Your task to perform on an android device: turn off picture-in-picture Image 0: 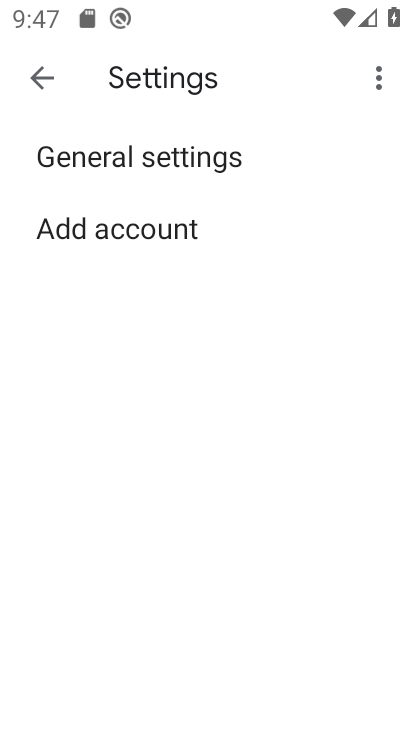
Step 0: press home button
Your task to perform on an android device: turn off picture-in-picture Image 1: 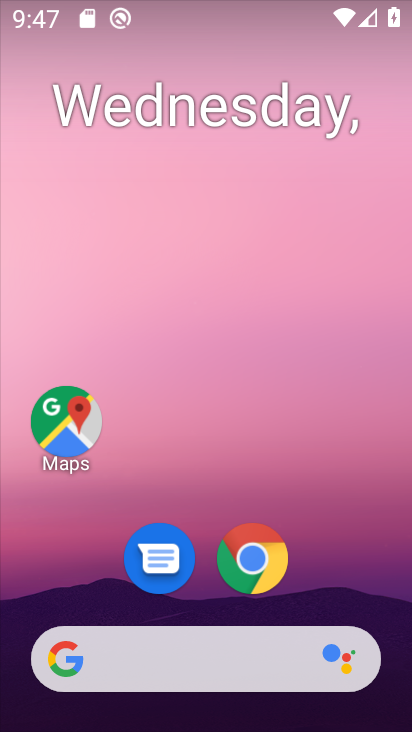
Step 1: drag from (342, 558) to (353, 155)
Your task to perform on an android device: turn off picture-in-picture Image 2: 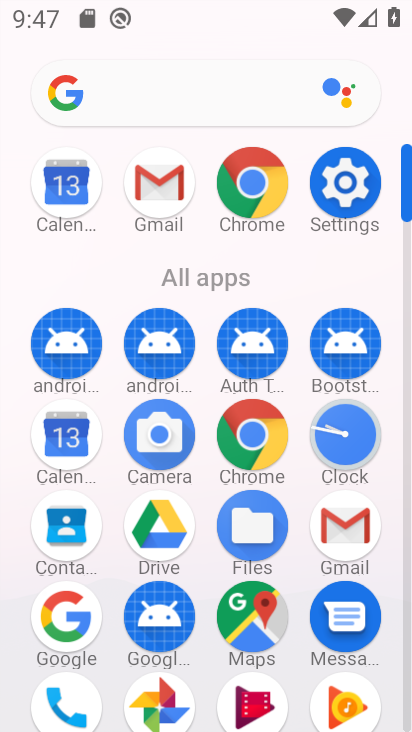
Step 2: click (348, 195)
Your task to perform on an android device: turn off picture-in-picture Image 3: 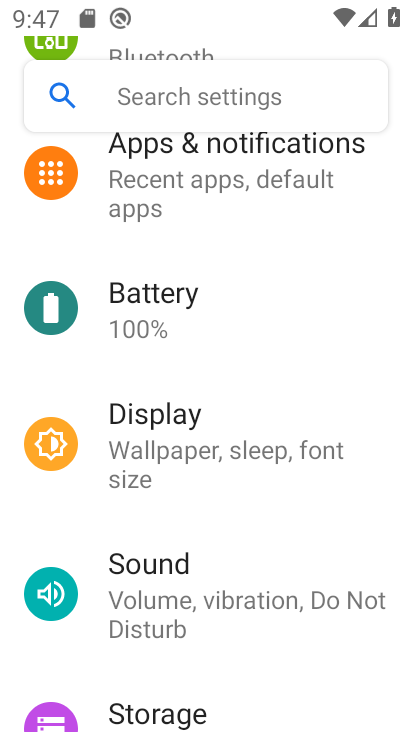
Step 3: drag from (359, 549) to (357, 449)
Your task to perform on an android device: turn off picture-in-picture Image 4: 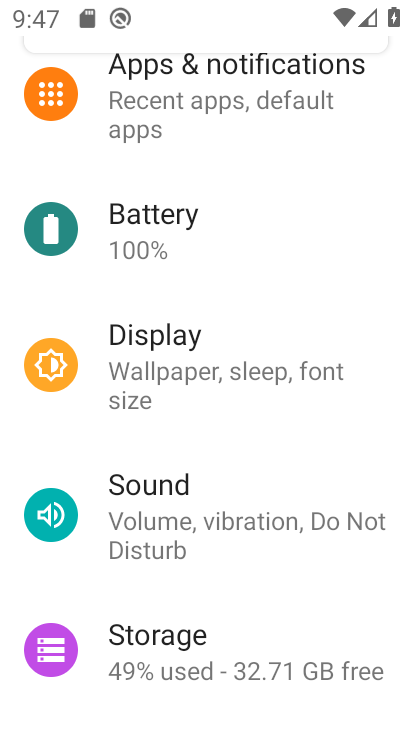
Step 4: drag from (365, 596) to (371, 482)
Your task to perform on an android device: turn off picture-in-picture Image 5: 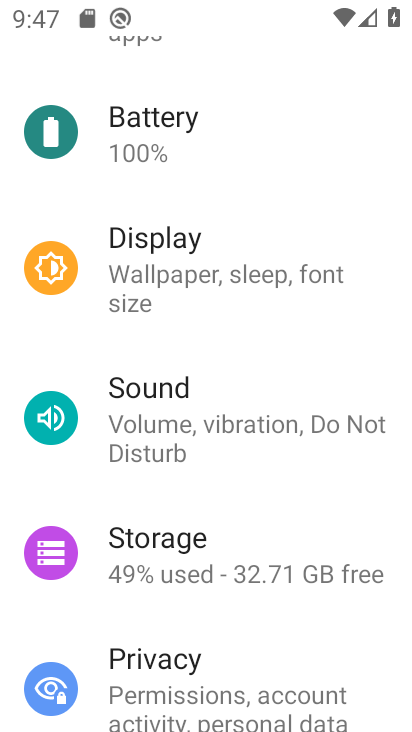
Step 5: drag from (385, 627) to (385, 476)
Your task to perform on an android device: turn off picture-in-picture Image 6: 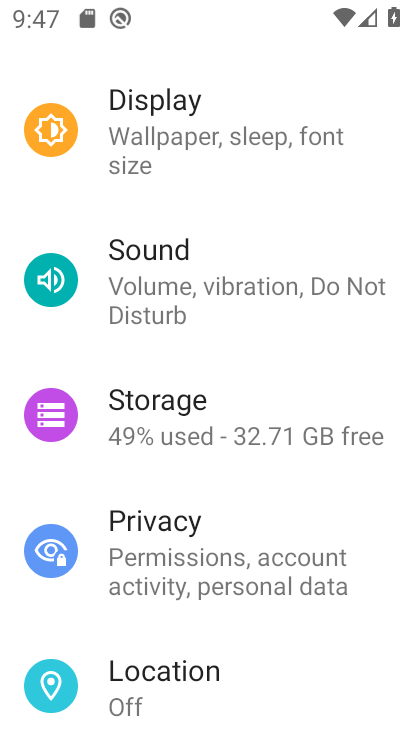
Step 6: drag from (366, 640) to (366, 535)
Your task to perform on an android device: turn off picture-in-picture Image 7: 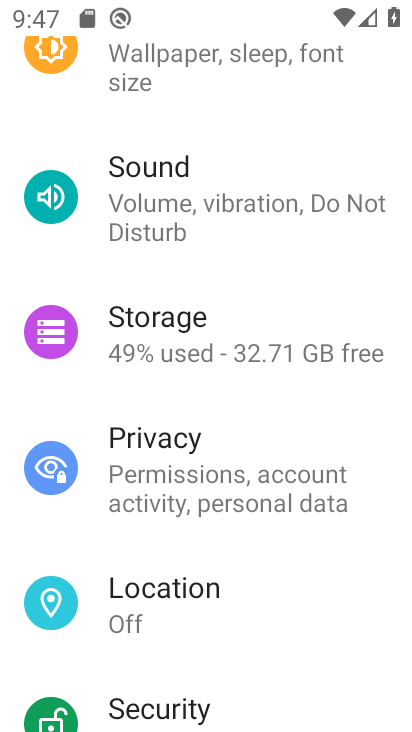
Step 7: drag from (300, 596) to (316, 514)
Your task to perform on an android device: turn off picture-in-picture Image 8: 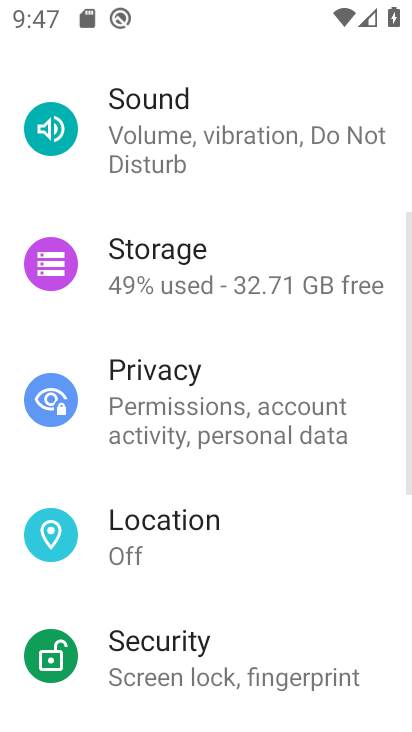
Step 8: drag from (312, 561) to (328, 459)
Your task to perform on an android device: turn off picture-in-picture Image 9: 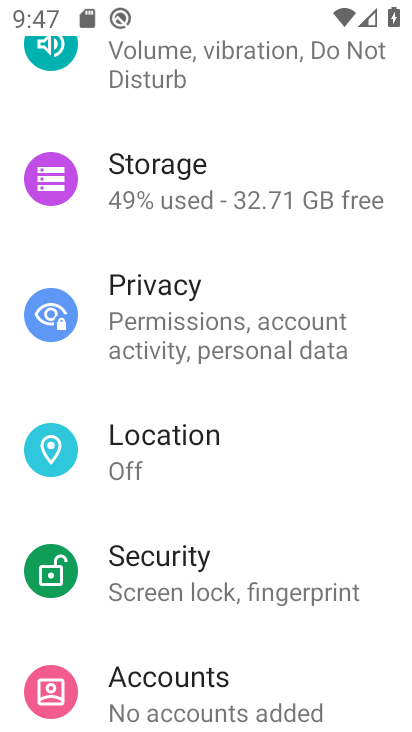
Step 9: drag from (306, 532) to (320, 432)
Your task to perform on an android device: turn off picture-in-picture Image 10: 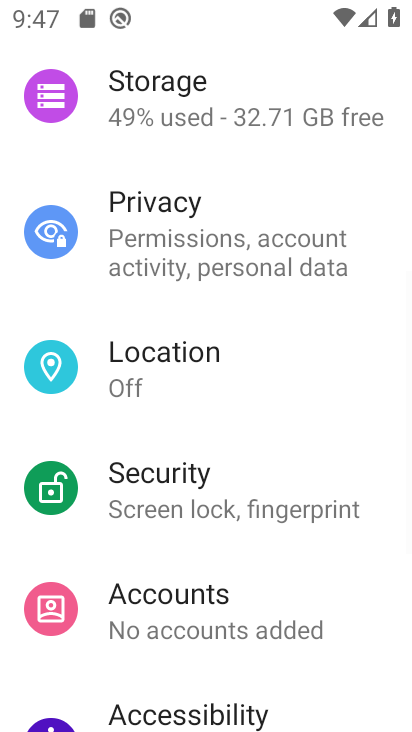
Step 10: drag from (322, 545) to (338, 442)
Your task to perform on an android device: turn off picture-in-picture Image 11: 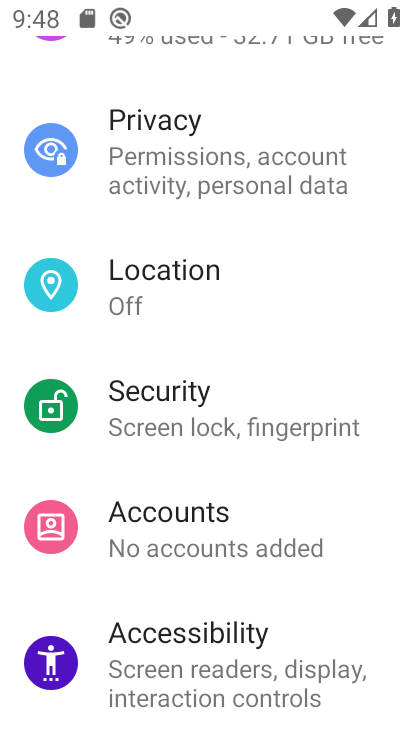
Step 11: drag from (333, 559) to (348, 394)
Your task to perform on an android device: turn off picture-in-picture Image 12: 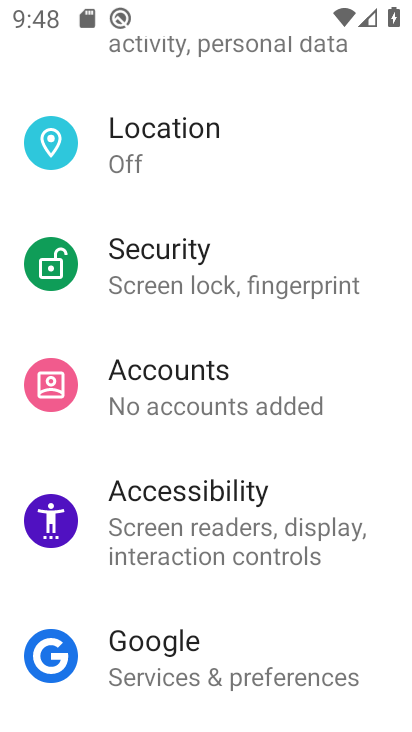
Step 12: drag from (346, 570) to (359, 397)
Your task to perform on an android device: turn off picture-in-picture Image 13: 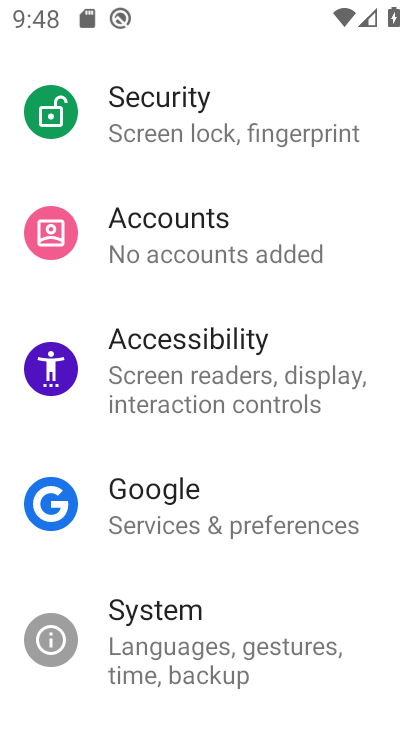
Step 13: drag from (355, 279) to (359, 411)
Your task to perform on an android device: turn off picture-in-picture Image 14: 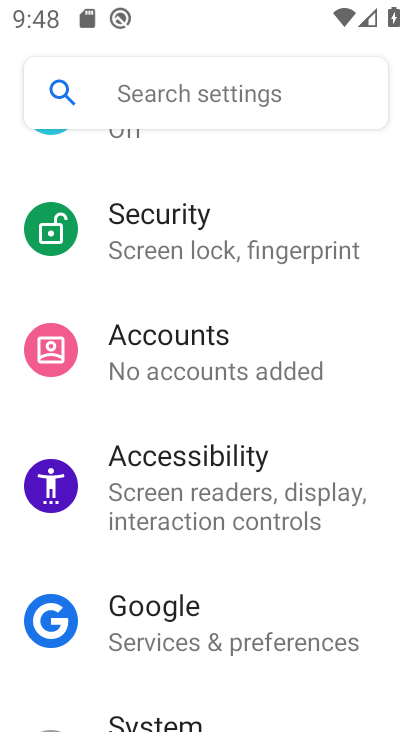
Step 14: drag from (357, 209) to (335, 391)
Your task to perform on an android device: turn off picture-in-picture Image 15: 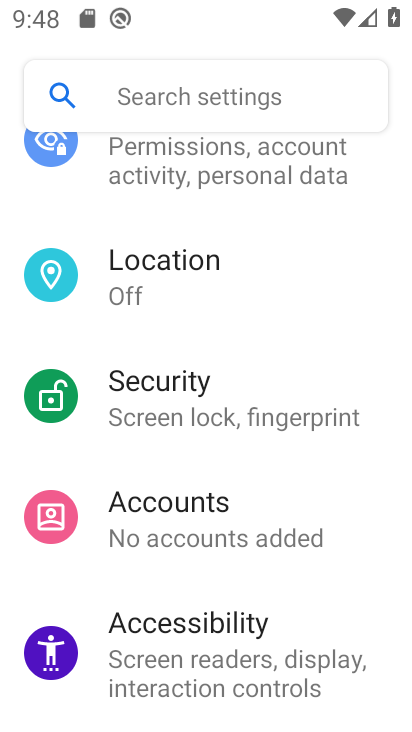
Step 15: drag from (334, 254) to (332, 358)
Your task to perform on an android device: turn off picture-in-picture Image 16: 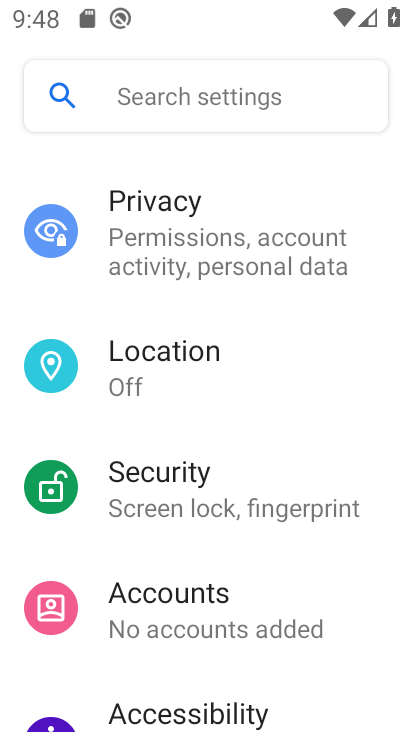
Step 16: drag from (327, 210) to (311, 365)
Your task to perform on an android device: turn off picture-in-picture Image 17: 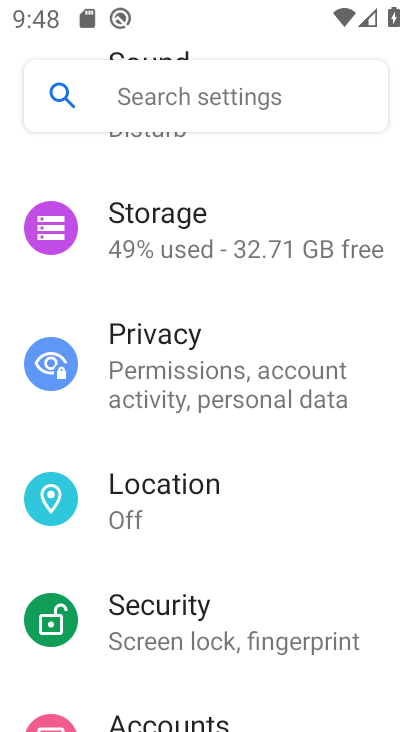
Step 17: drag from (327, 194) to (317, 345)
Your task to perform on an android device: turn off picture-in-picture Image 18: 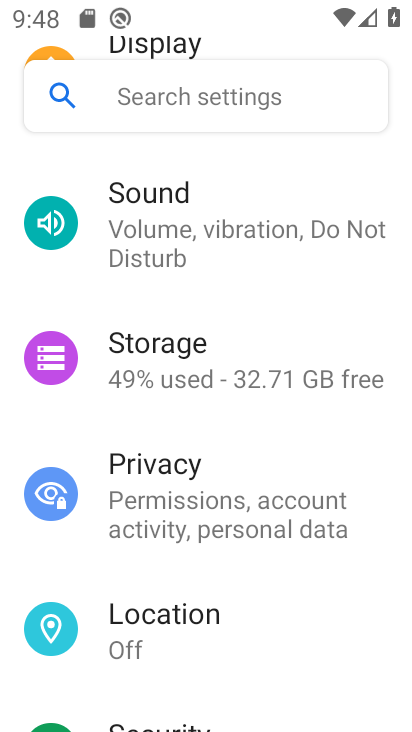
Step 18: drag from (334, 175) to (320, 306)
Your task to perform on an android device: turn off picture-in-picture Image 19: 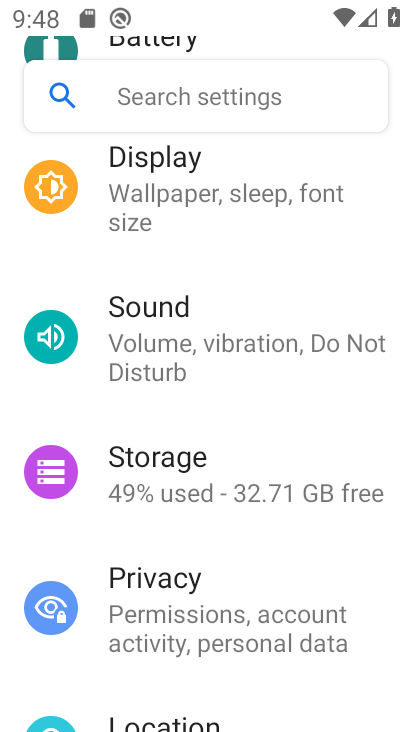
Step 19: drag from (354, 212) to (353, 346)
Your task to perform on an android device: turn off picture-in-picture Image 20: 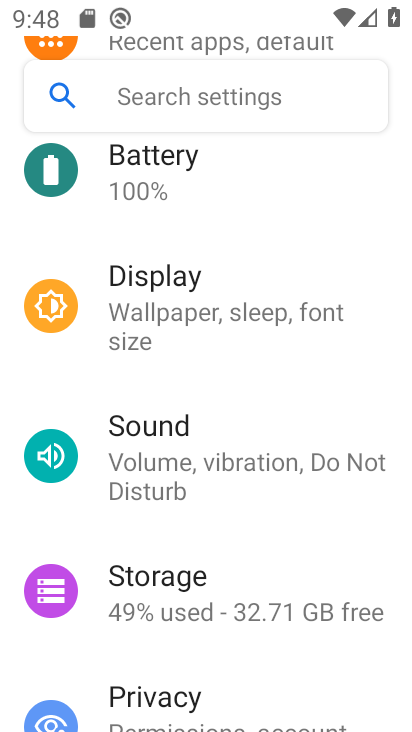
Step 20: drag from (348, 215) to (344, 361)
Your task to perform on an android device: turn off picture-in-picture Image 21: 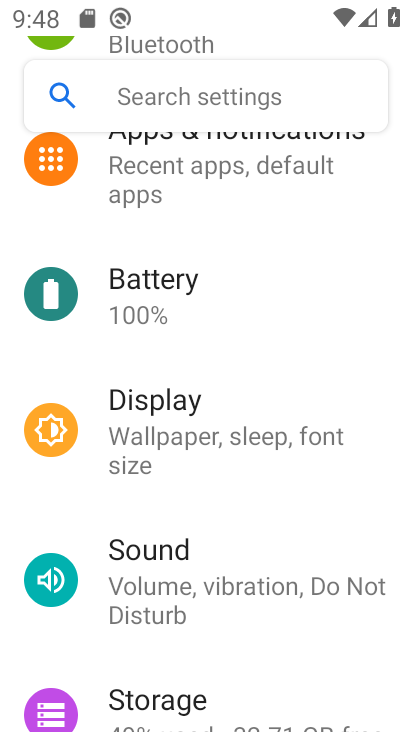
Step 21: drag from (342, 215) to (329, 367)
Your task to perform on an android device: turn off picture-in-picture Image 22: 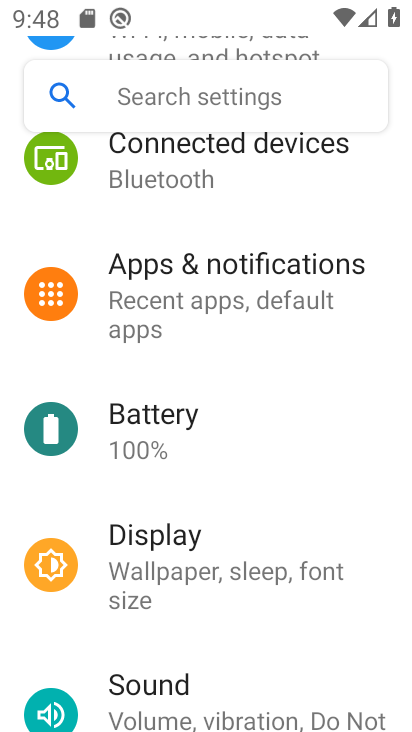
Step 22: click (247, 288)
Your task to perform on an android device: turn off picture-in-picture Image 23: 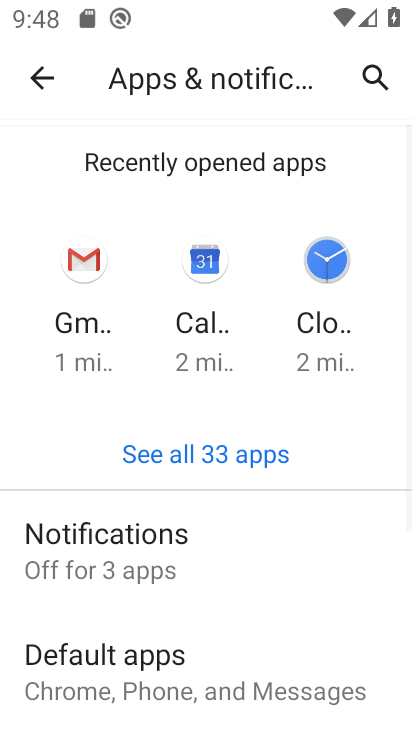
Step 23: drag from (264, 502) to (283, 342)
Your task to perform on an android device: turn off picture-in-picture Image 24: 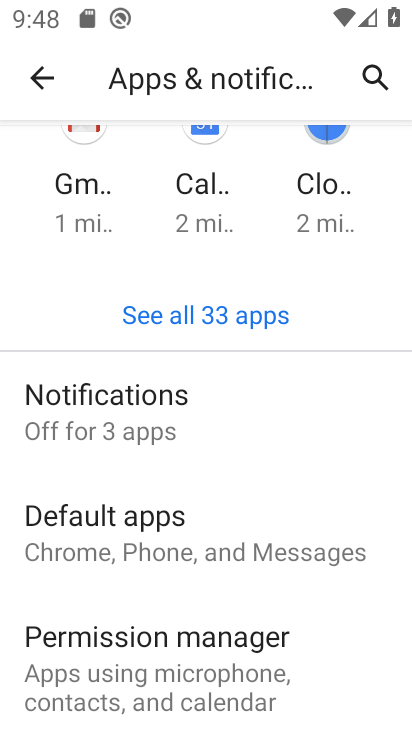
Step 24: drag from (276, 466) to (285, 375)
Your task to perform on an android device: turn off picture-in-picture Image 25: 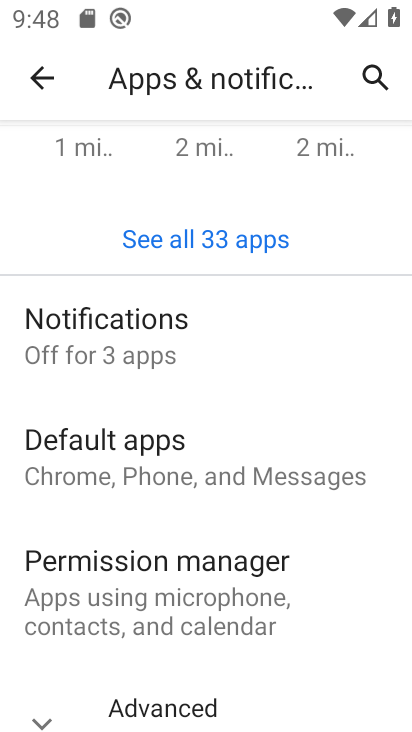
Step 25: drag from (223, 427) to (232, 291)
Your task to perform on an android device: turn off picture-in-picture Image 26: 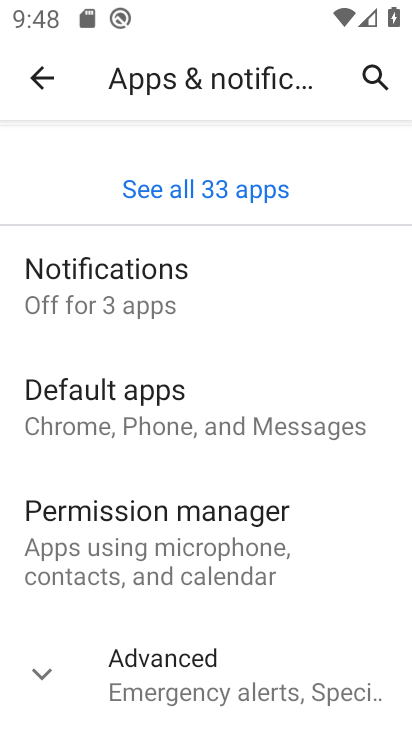
Step 26: click (183, 644)
Your task to perform on an android device: turn off picture-in-picture Image 27: 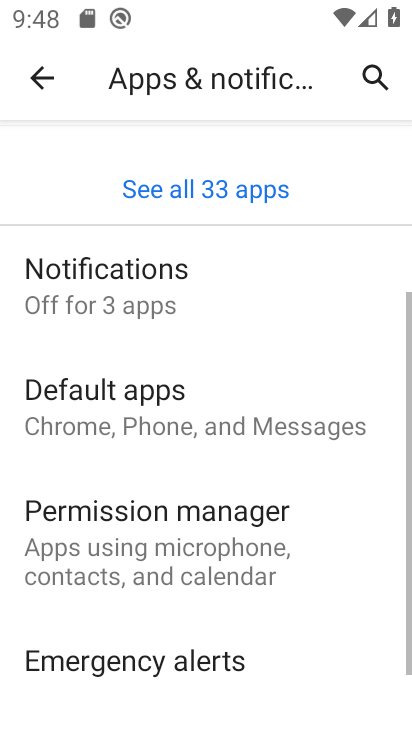
Step 27: drag from (319, 583) to (335, 443)
Your task to perform on an android device: turn off picture-in-picture Image 28: 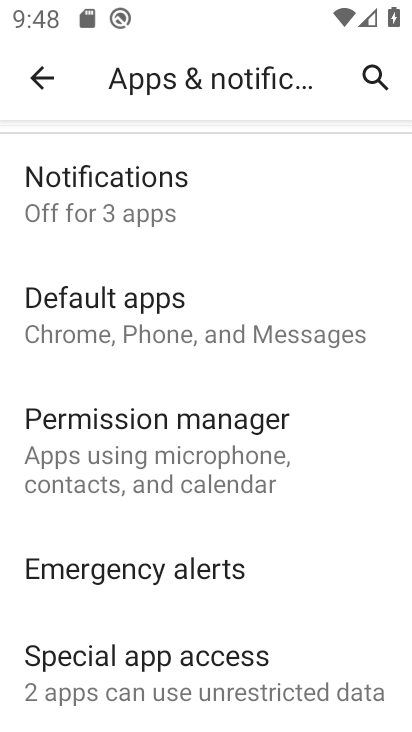
Step 28: click (263, 661)
Your task to perform on an android device: turn off picture-in-picture Image 29: 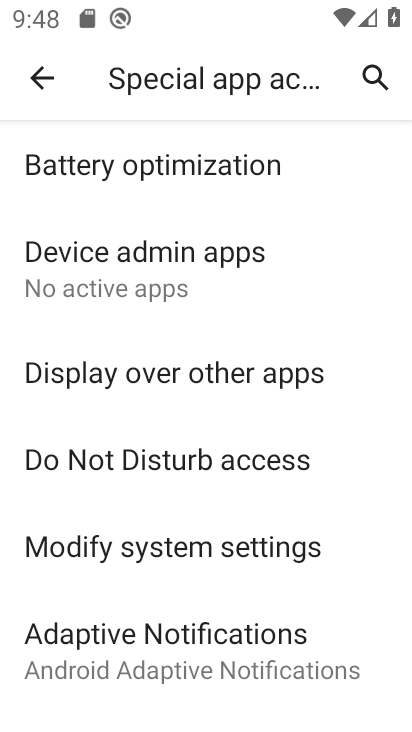
Step 29: drag from (358, 582) to (360, 463)
Your task to perform on an android device: turn off picture-in-picture Image 30: 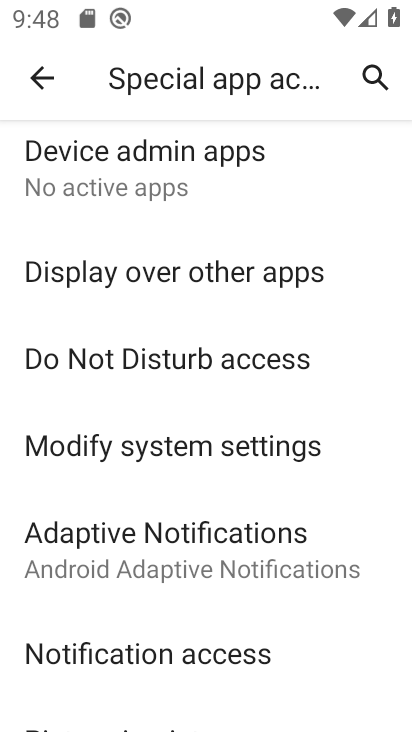
Step 30: drag from (352, 580) to (352, 455)
Your task to perform on an android device: turn off picture-in-picture Image 31: 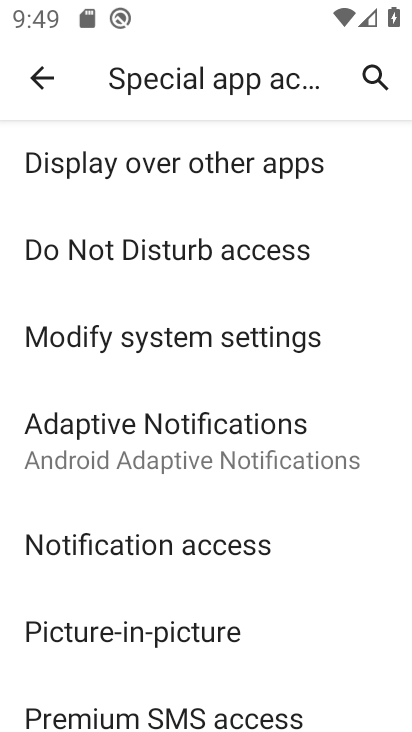
Step 31: drag from (356, 558) to (357, 453)
Your task to perform on an android device: turn off picture-in-picture Image 32: 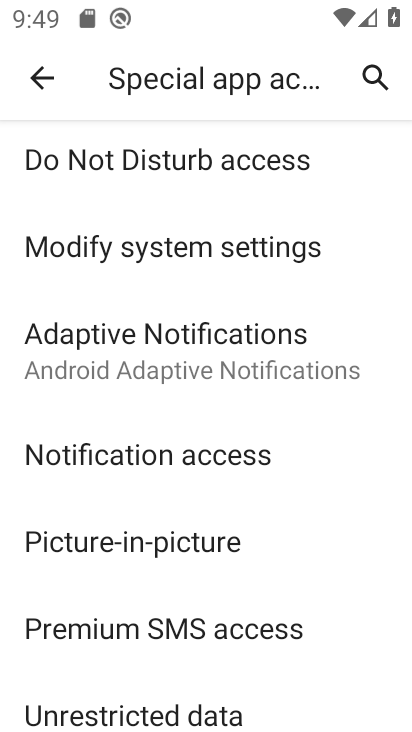
Step 32: drag from (342, 534) to (344, 431)
Your task to perform on an android device: turn off picture-in-picture Image 33: 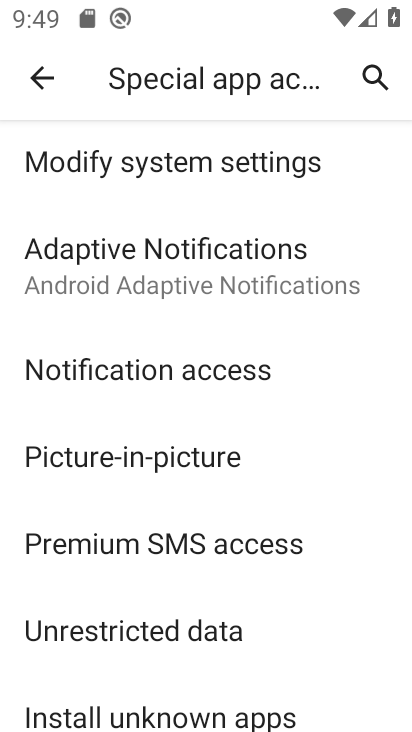
Step 33: click (261, 454)
Your task to perform on an android device: turn off picture-in-picture Image 34: 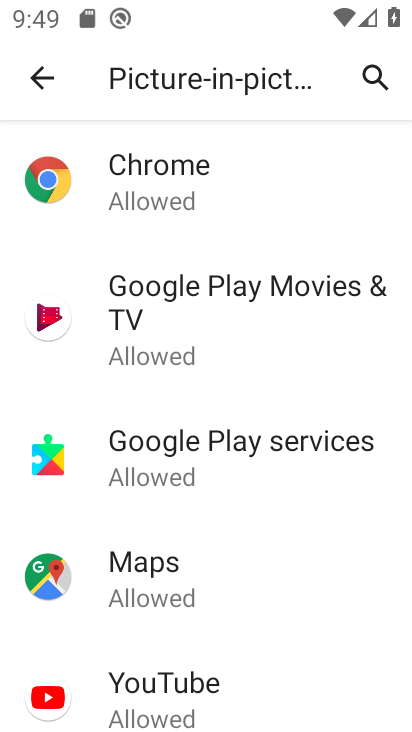
Step 34: drag from (263, 541) to (273, 423)
Your task to perform on an android device: turn off picture-in-picture Image 35: 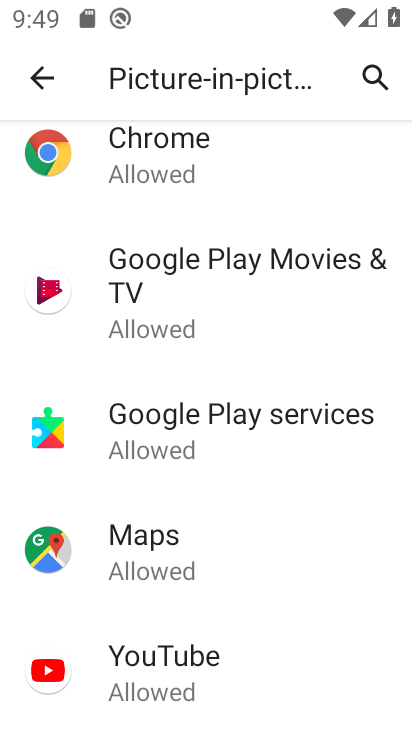
Step 35: click (175, 662)
Your task to perform on an android device: turn off picture-in-picture Image 36: 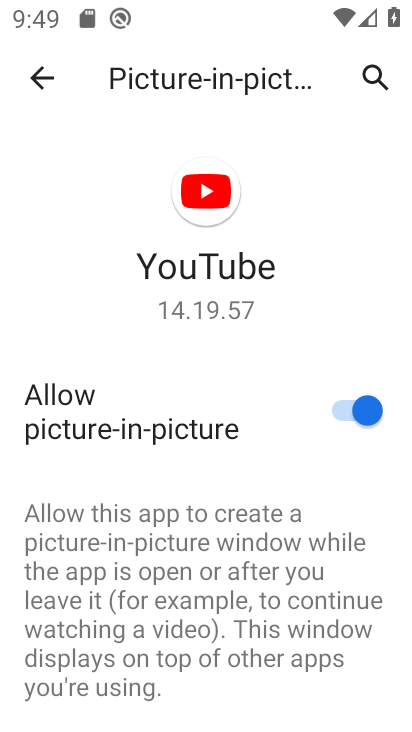
Step 36: click (378, 405)
Your task to perform on an android device: turn off picture-in-picture Image 37: 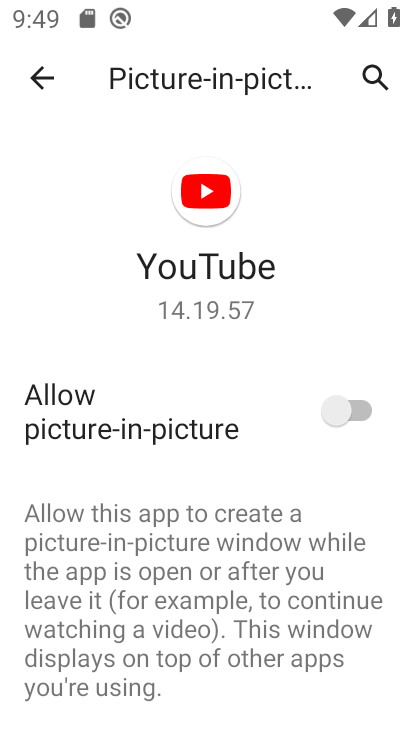
Step 37: task complete